Your task to perform on an android device: turn on sleep mode Image 0: 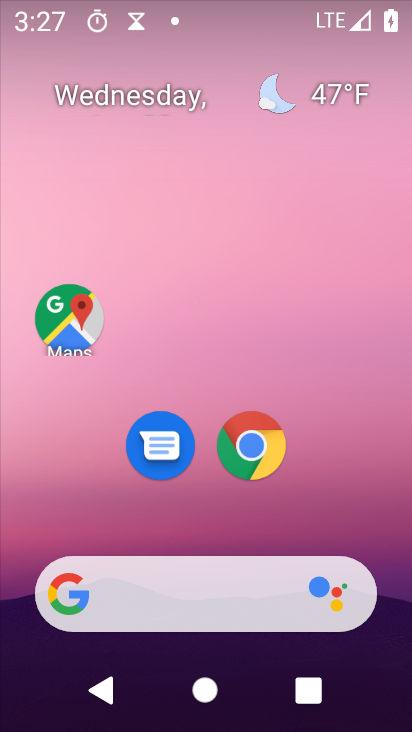
Step 0: press home button
Your task to perform on an android device: turn on sleep mode Image 1: 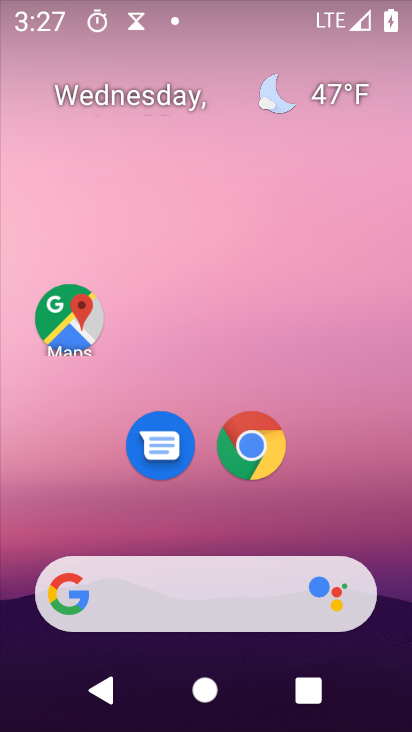
Step 1: drag from (361, 496) to (317, 0)
Your task to perform on an android device: turn on sleep mode Image 2: 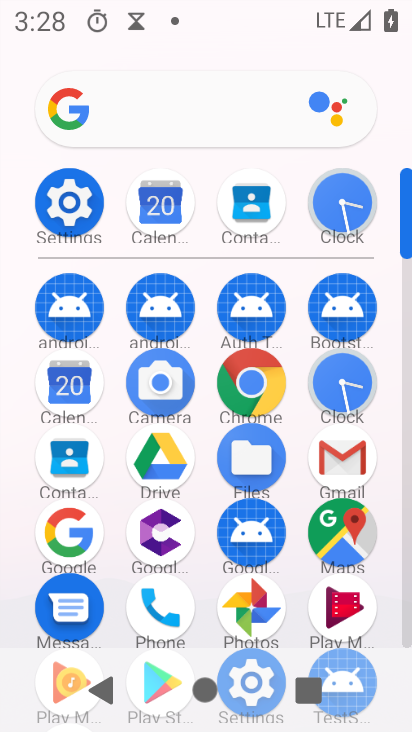
Step 2: click (62, 212)
Your task to perform on an android device: turn on sleep mode Image 3: 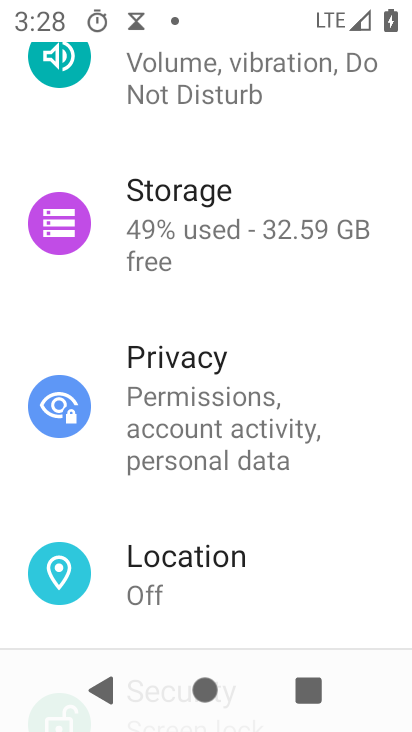
Step 3: drag from (315, 357) to (319, 596)
Your task to perform on an android device: turn on sleep mode Image 4: 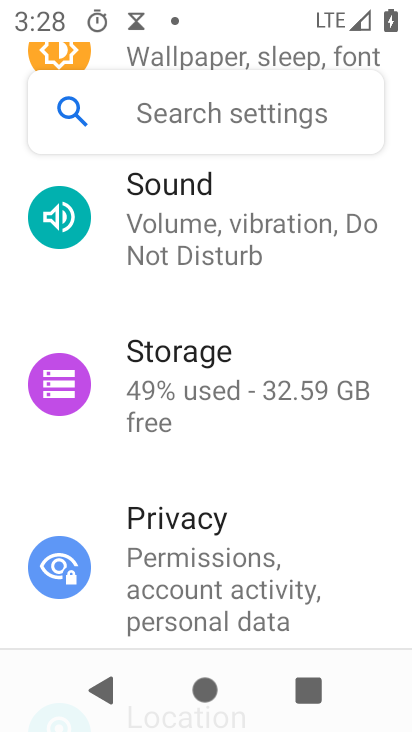
Step 4: drag from (326, 301) to (336, 632)
Your task to perform on an android device: turn on sleep mode Image 5: 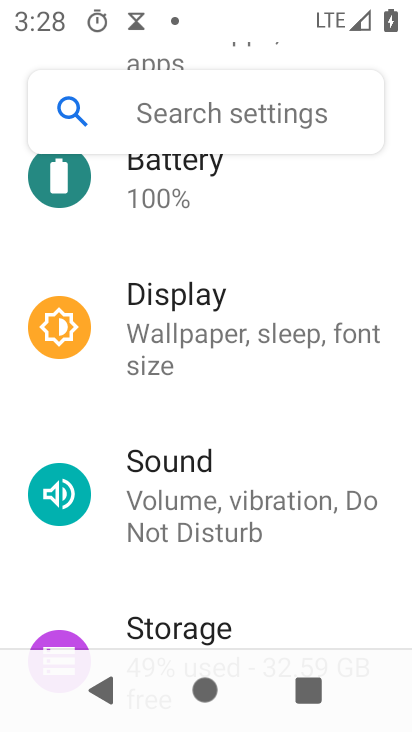
Step 5: click (147, 340)
Your task to perform on an android device: turn on sleep mode Image 6: 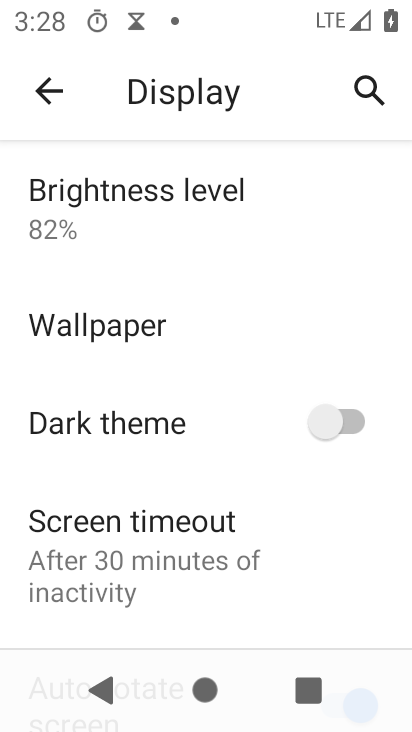
Step 6: drag from (176, 519) to (164, 198)
Your task to perform on an android device: turn on sleep mode Image 7: 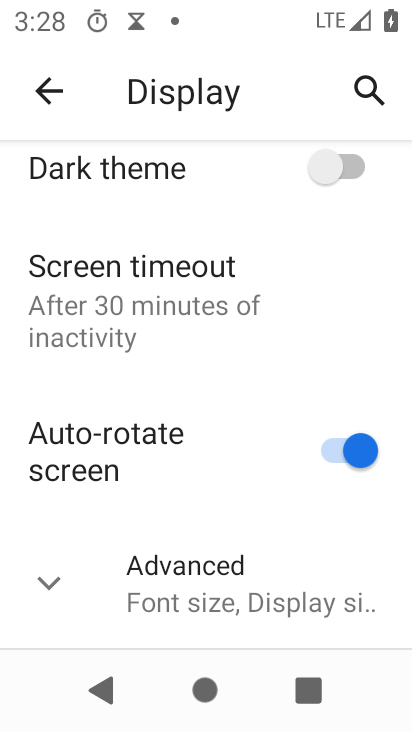
Step 7: click (46, 593)
Your task to perform on an android device: turn on sleep mode Image 8: 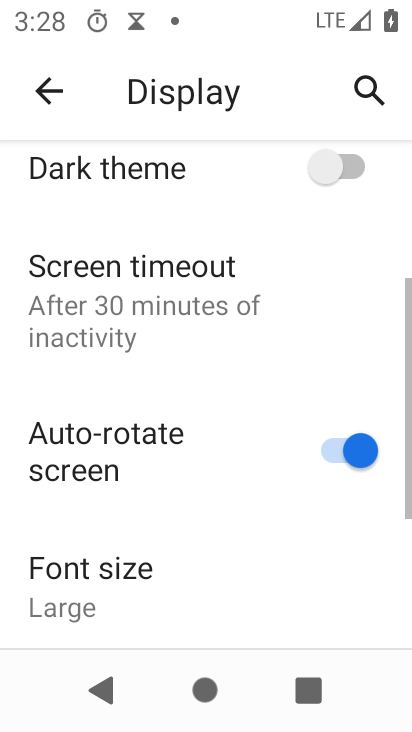
Step 8: task complete